Your task to perform on an android device: turn off notifications settings in the gmail app Image 0: 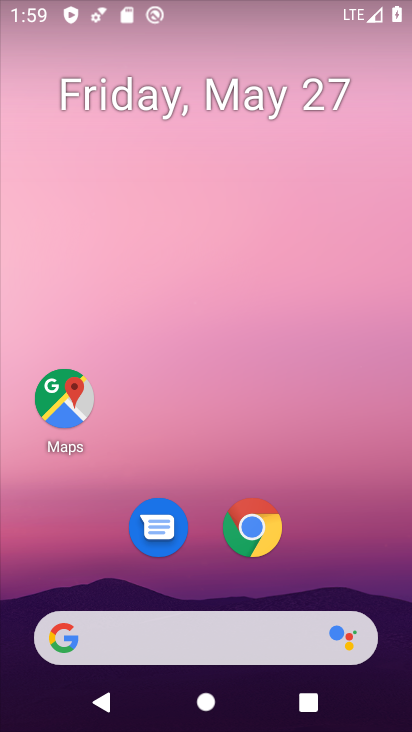
Step 0: drag from (241, 704) to (332, 13)
Your task to perform on an android device: turn off notifications settings in the gmail app Image 1: 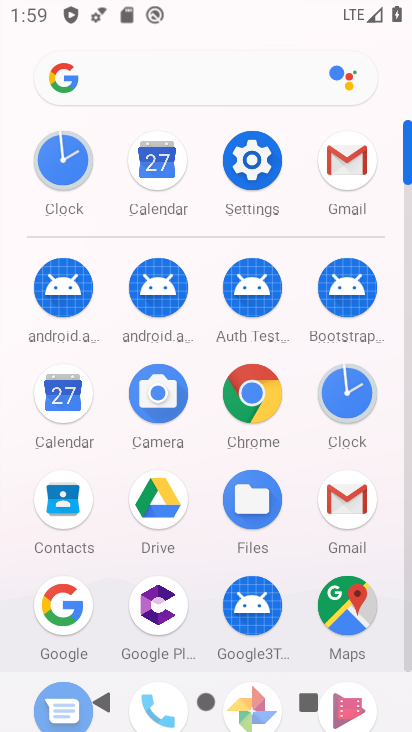
Step 1: click (348, 502)
Your task to perform on an android device: turn off notifications settings in the gmail app Image 2: 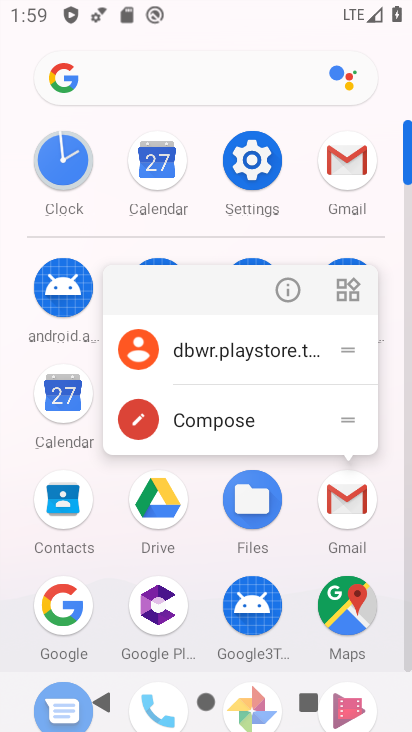
Step 2: click (287, 281)
Your task to perform on an android device: turn off notifications settings in the gmail app Image 3: 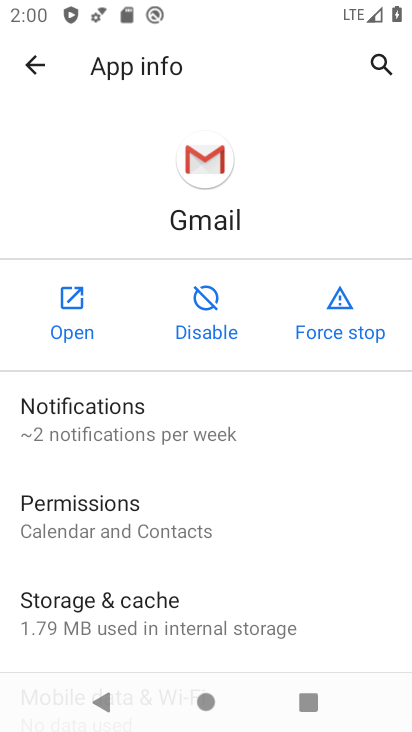
Step 3: click (214, 407)
Your task to perform on an android device: turn off notifications settings in the gmail app Image 4: 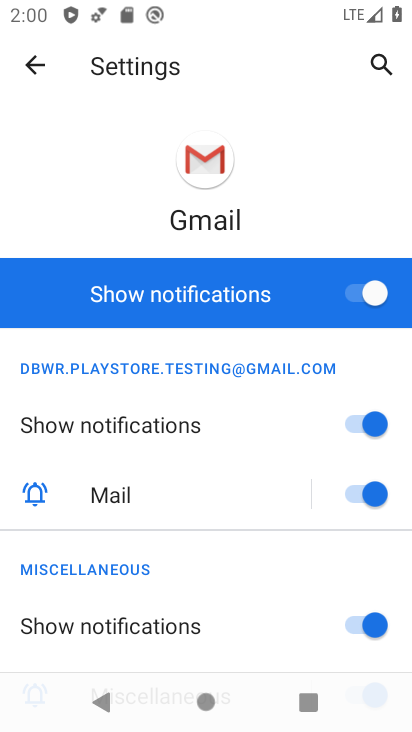
Step 4: click (375, 290)
Your task to perform on an android device: turn off notifications settings in the gmail app Image 5: 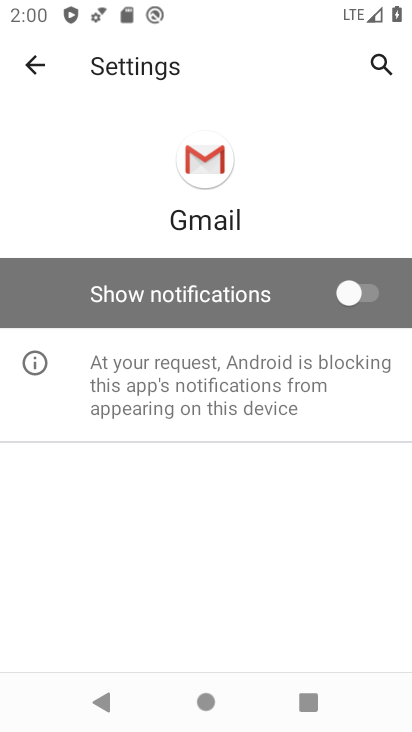
Step 5: task complete